Your task to perform on an android device: Search for usb-c on ebay.com, select the first entry, add it to the cart, then select checkout. Image 0: 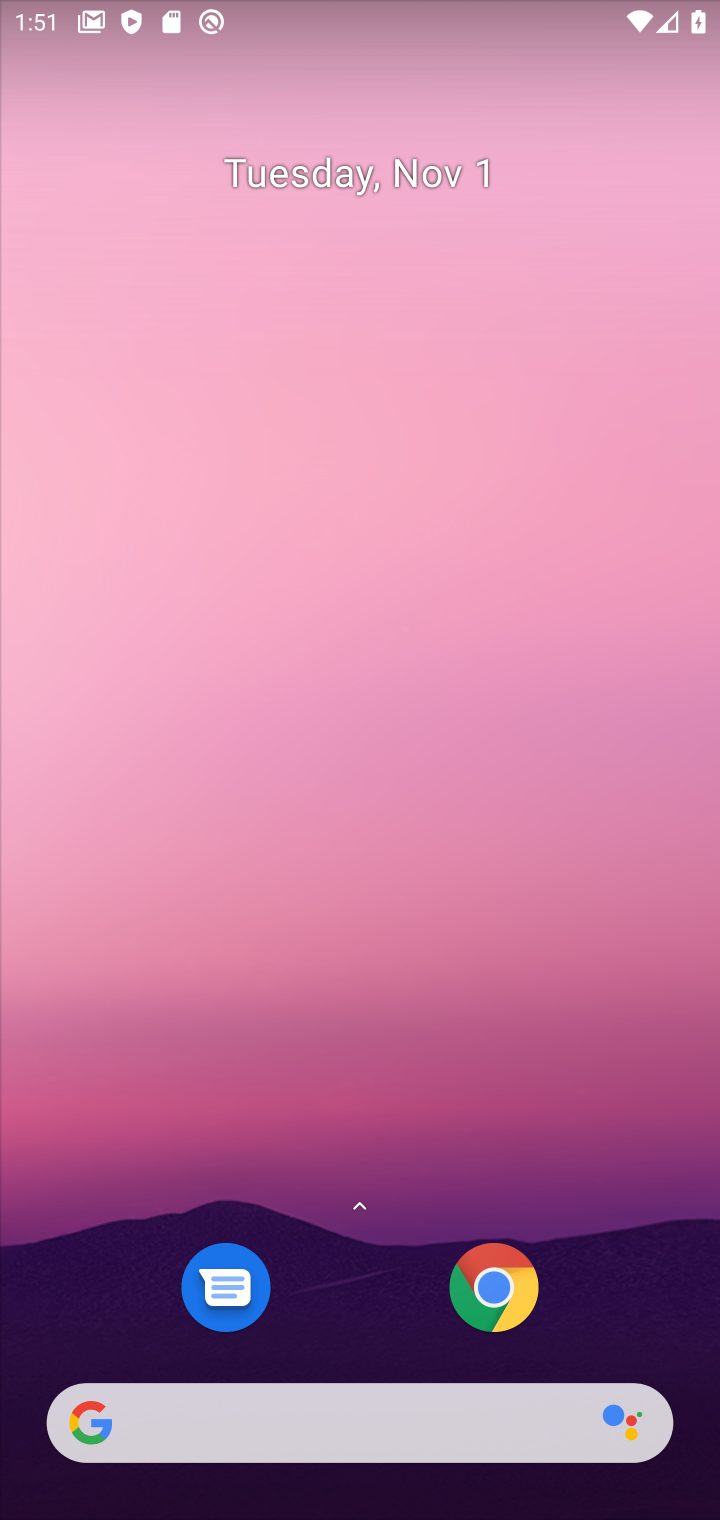
Step 0: drag from (333, 1249) to (336, 301)
Your task to perform on an android device: Search for usb-c on ebay.com, select the first entry, add it to the cart, then select checkout. Image 1: 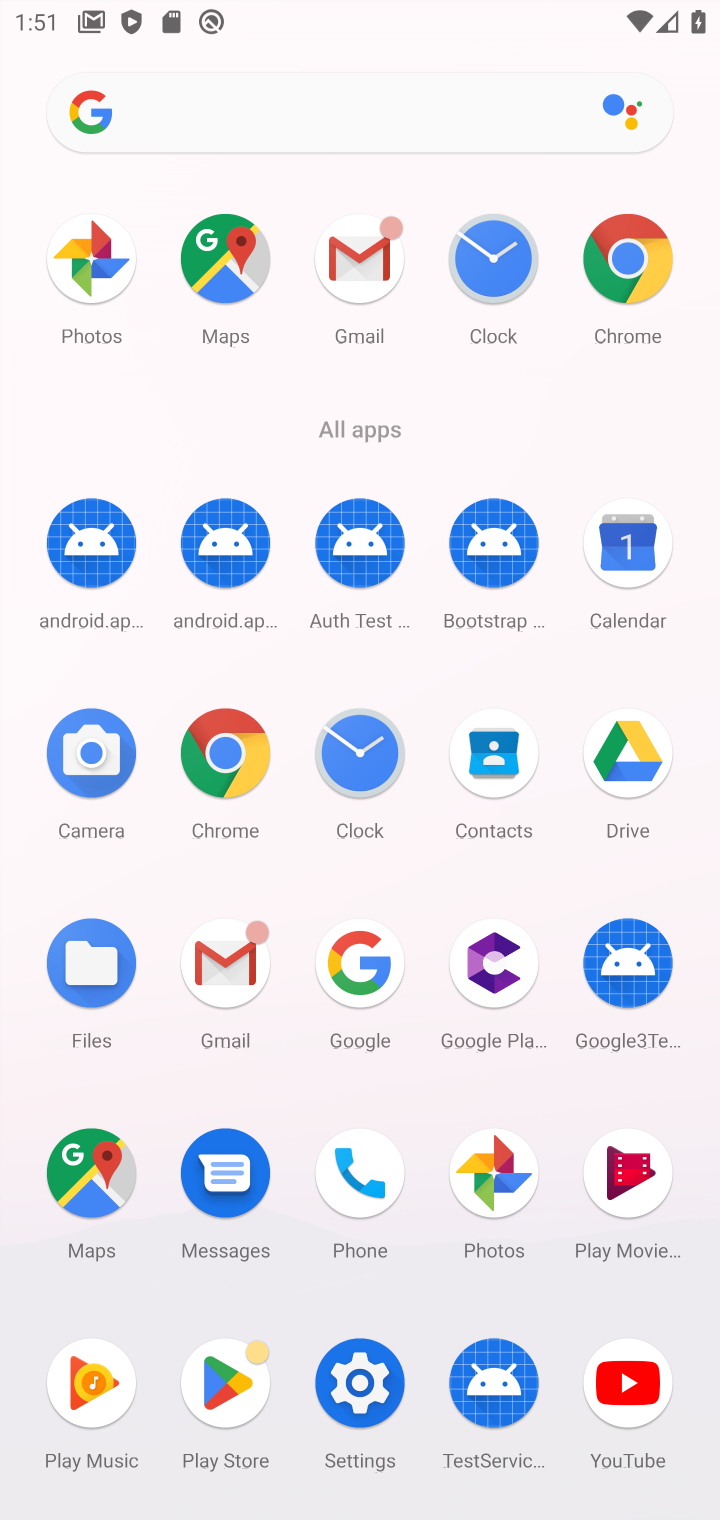
Step 1: click (232, 762)
Your task to perform on an android device: Search for usb-c on ebay.com, select the first entry, add it to the cart, then select checkout. Image 2: 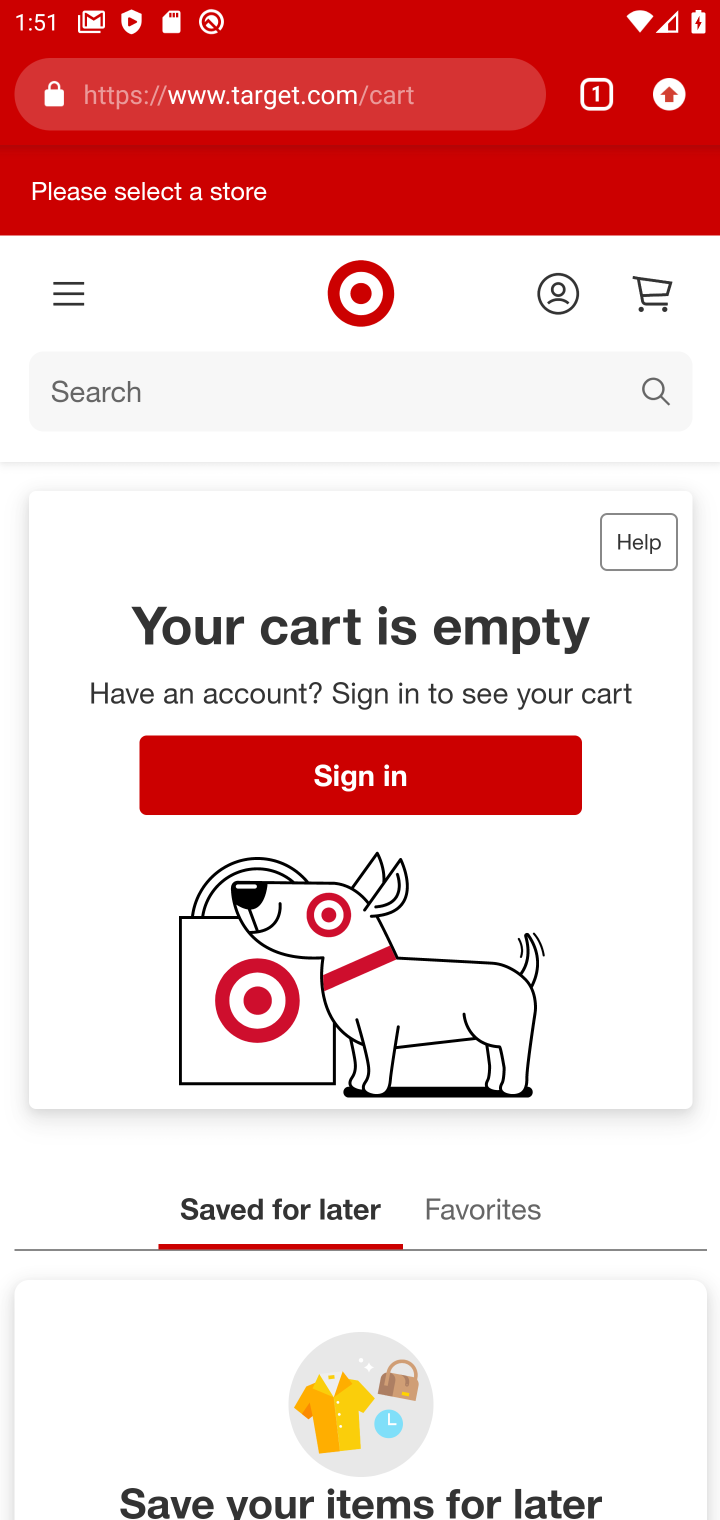
Step 2: click (394, 102)
Your task to perform on an android device: Search for usb-c on ebay.com, select the first entry, add it to the cart, then select checkout. Image 3: 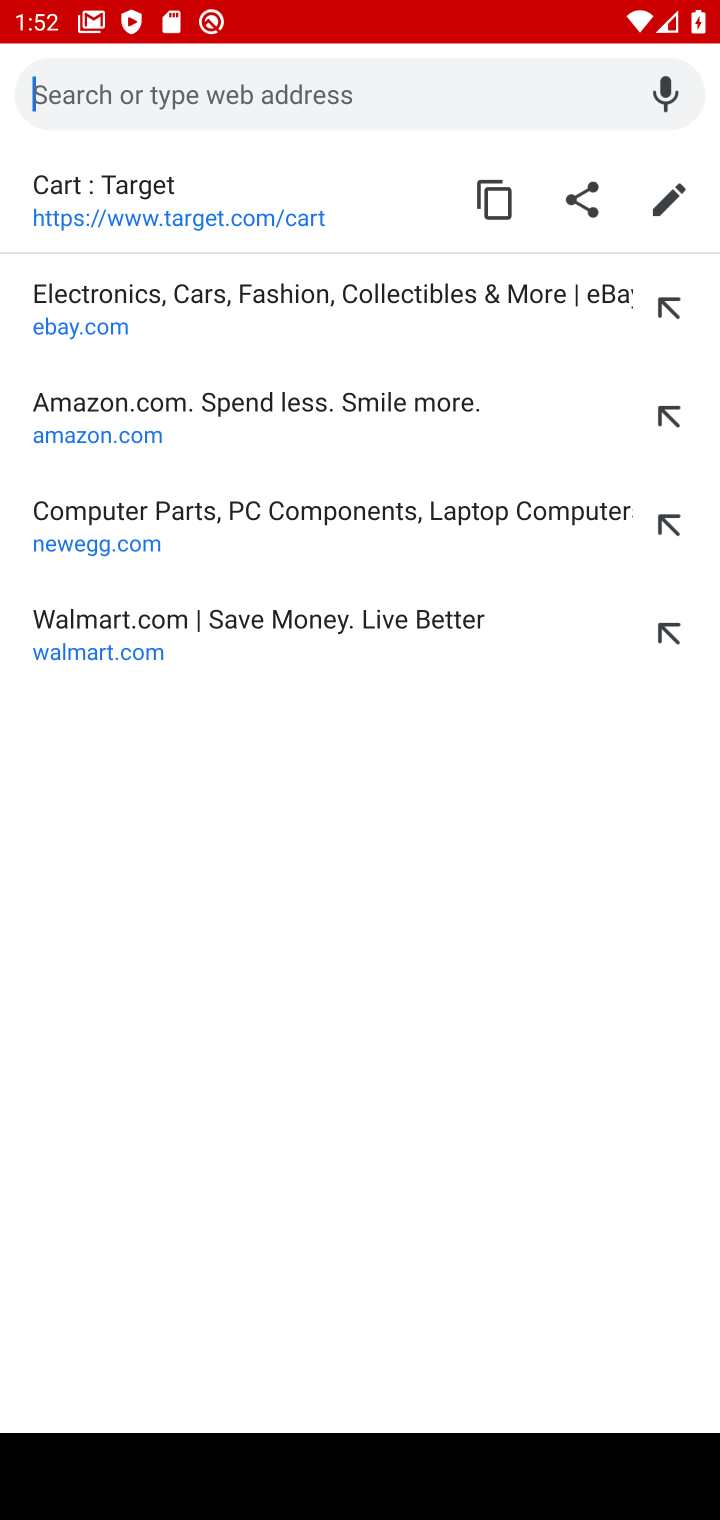
Step 3: type "ebay.com"
Your task to perform on an android device: Search for usb-c on ebay.com, select the first entry, add it to the cart, then select checkout. Image 4: 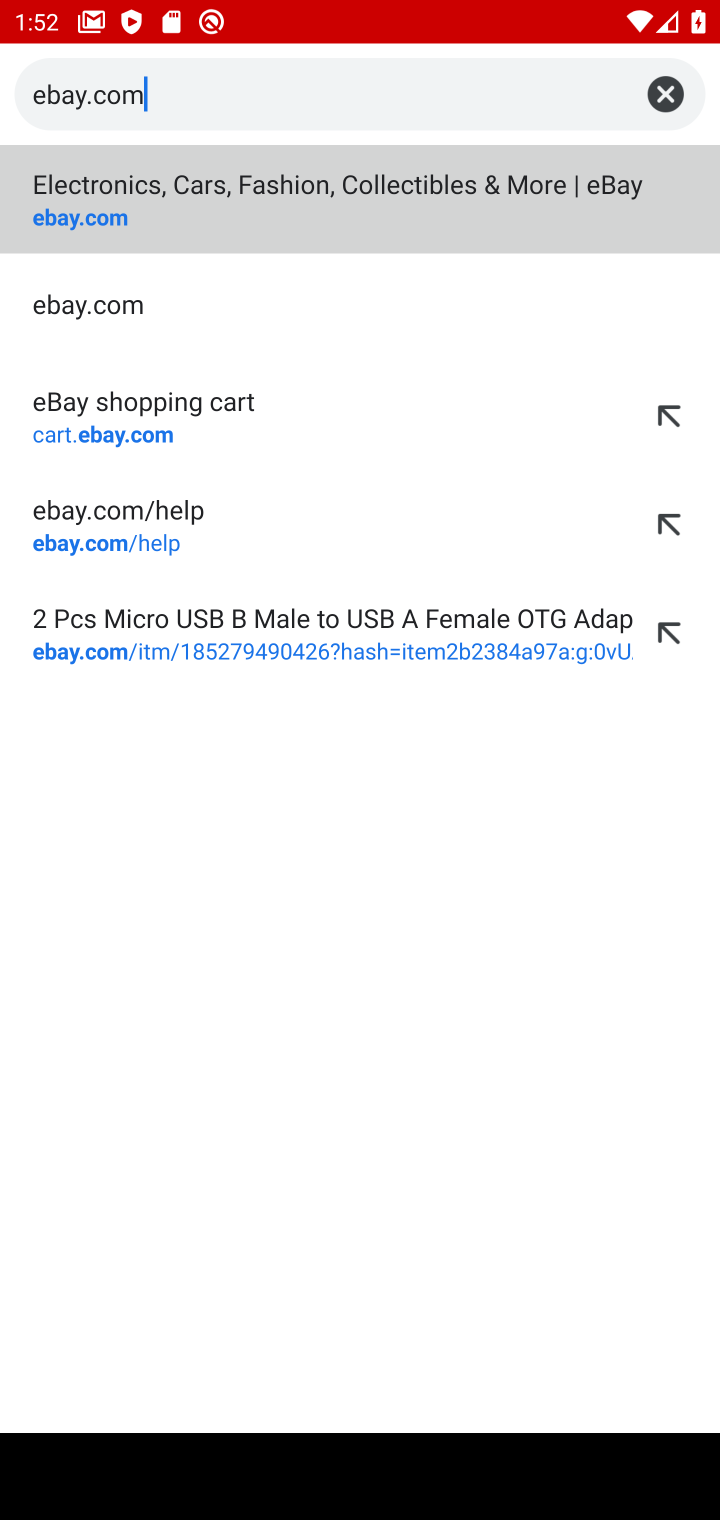
Step 4: press enter
Your task to perform on an android device: Search for usb-c on ebay.com, select the first entry, add it to the cart, then select checkout. Image 5: 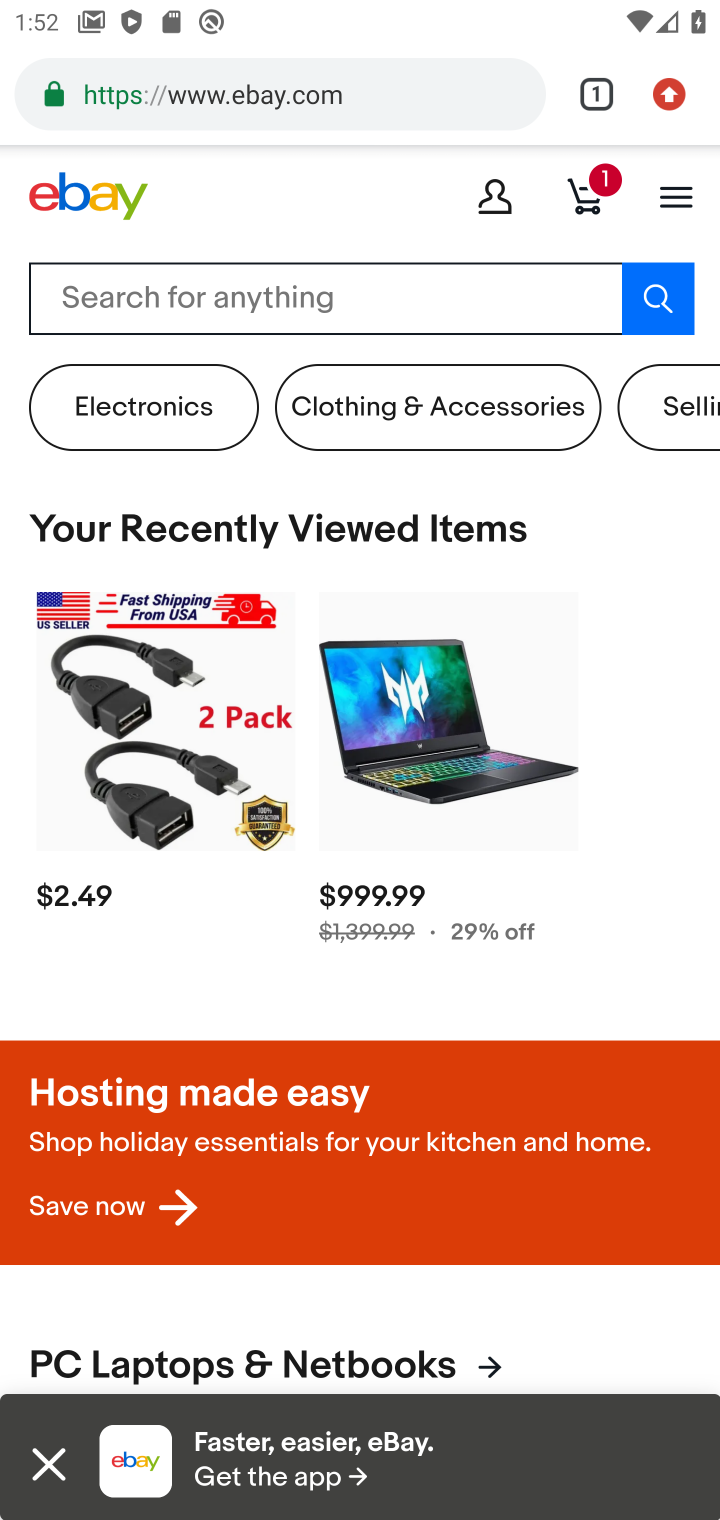
Step 5: click (236, 305)
Your task to perform on an android device: Search for usb-c on ebay.com, select the first entry, add it to the cart, then select checkout. Image 6: 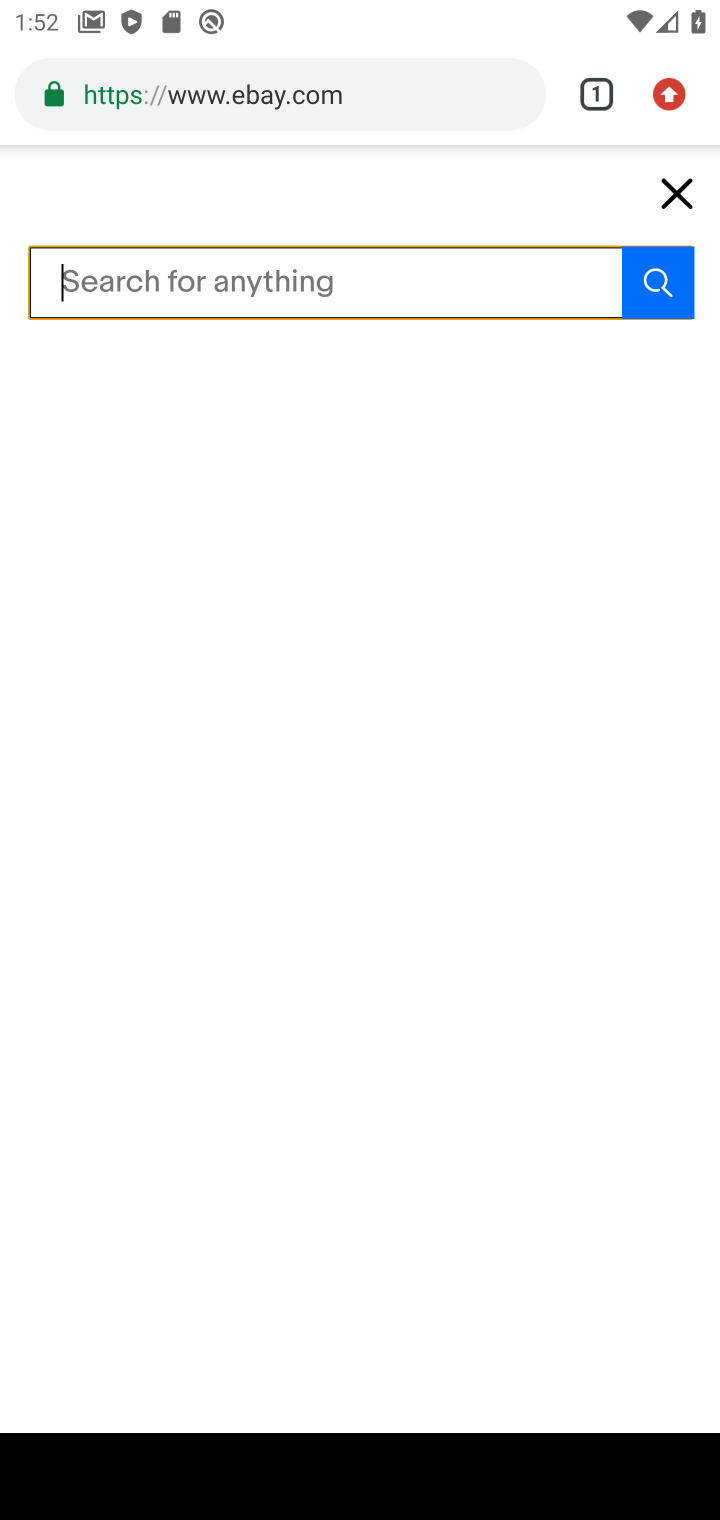
Step 6: type "usb-c"
Your task to perform on an android device: Search for usb-c on ebay.com, select the first entry, add it to the cart, then select checkout. Image 7: 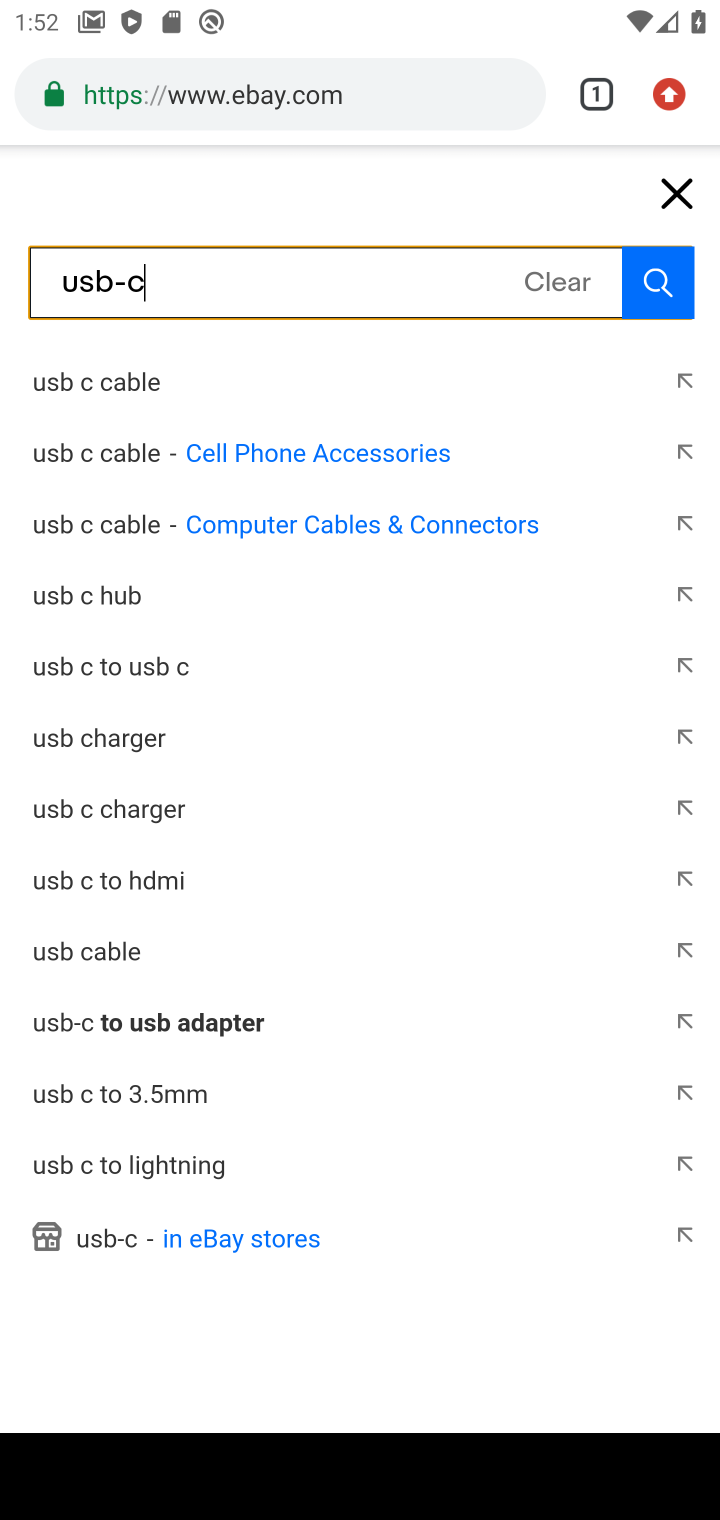
Step 7: press enter
Your task to perform on an android device: Search for usb-c on ebay.com, select the first entry, add it to the cart, then select checkout. Image 8: 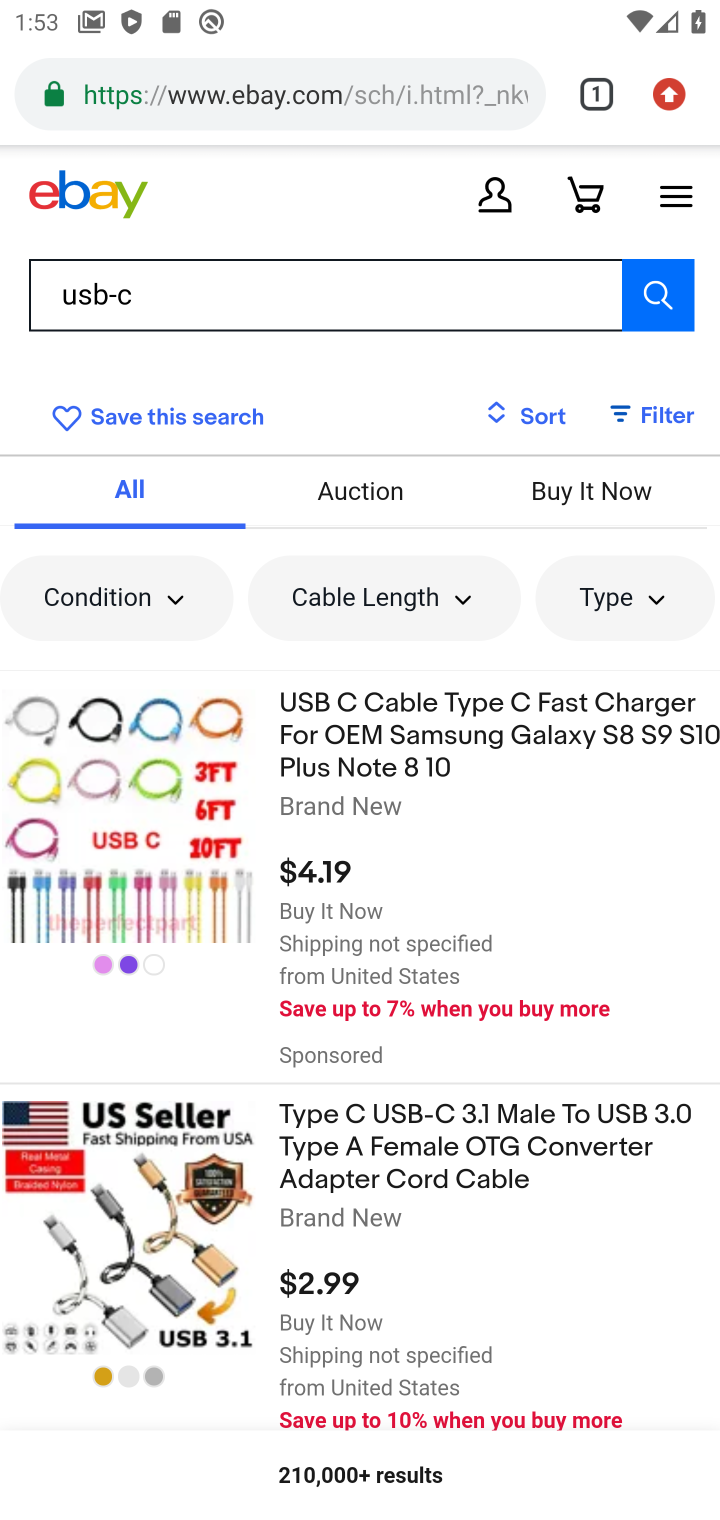
Step 8: click (312, 792)
Your task to perform on an android device: Search for usb-c on ebay.com, select the first entry, add it to the cart, then select checkout. Image 9: 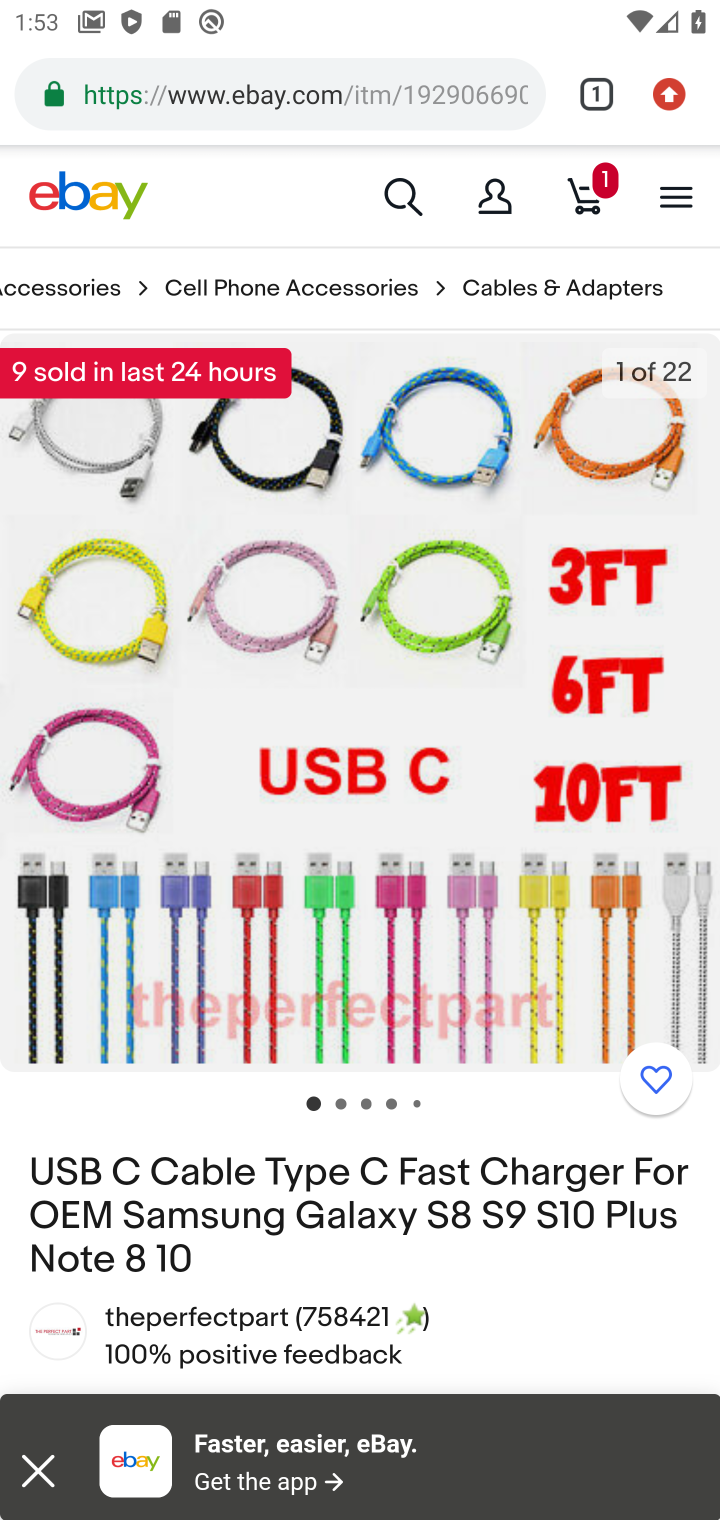
Step 9: drag from (511, 1093) to (460, 319)
Your task to perform on an android device: Search for usb-c on ebay.com, select the first entry, add it to the cart, then select checkout. Image 10: 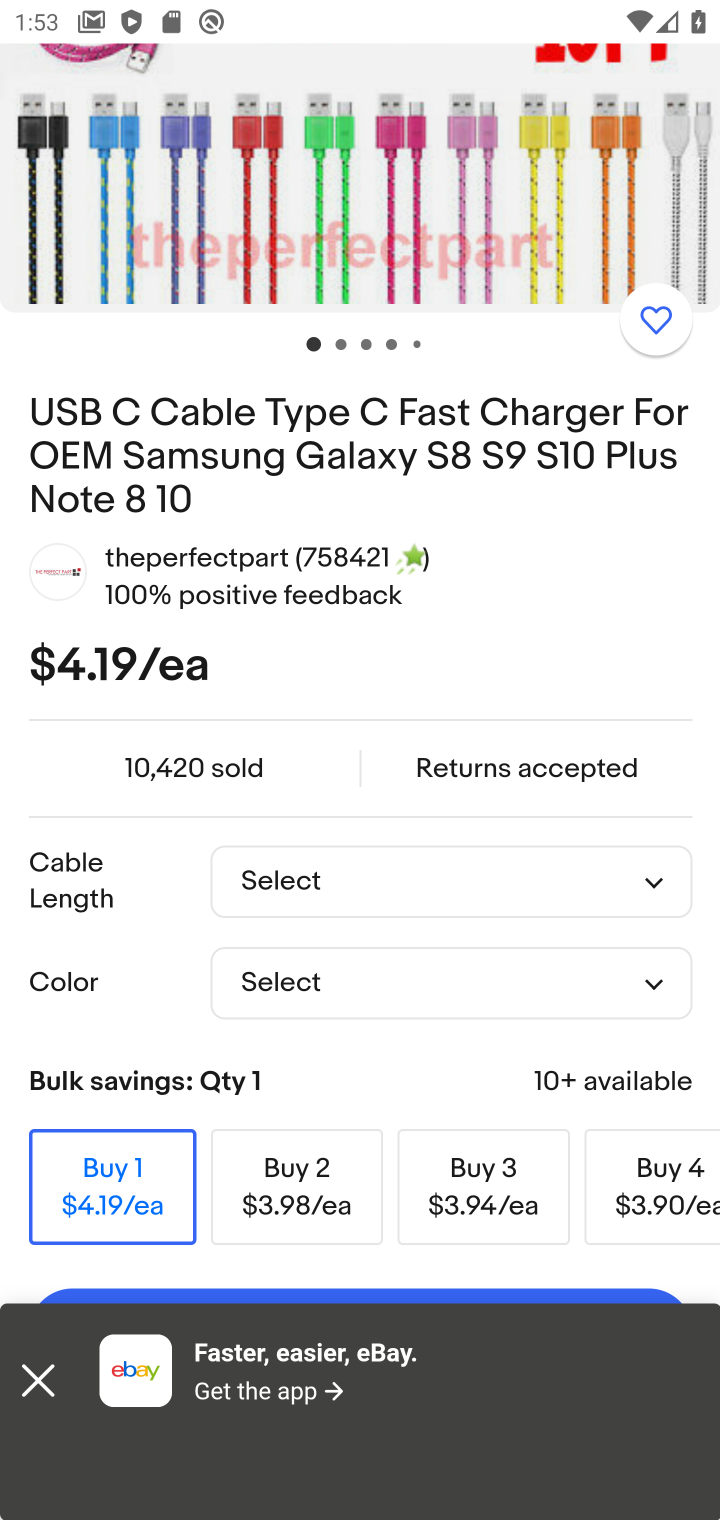
Step 10: drag from (473, 1056) to (441, 420)
Your task to perform on an android device: Search for usb-c on ebay.com, select the first entry, add it to the cart, then select checkout. Image 11: 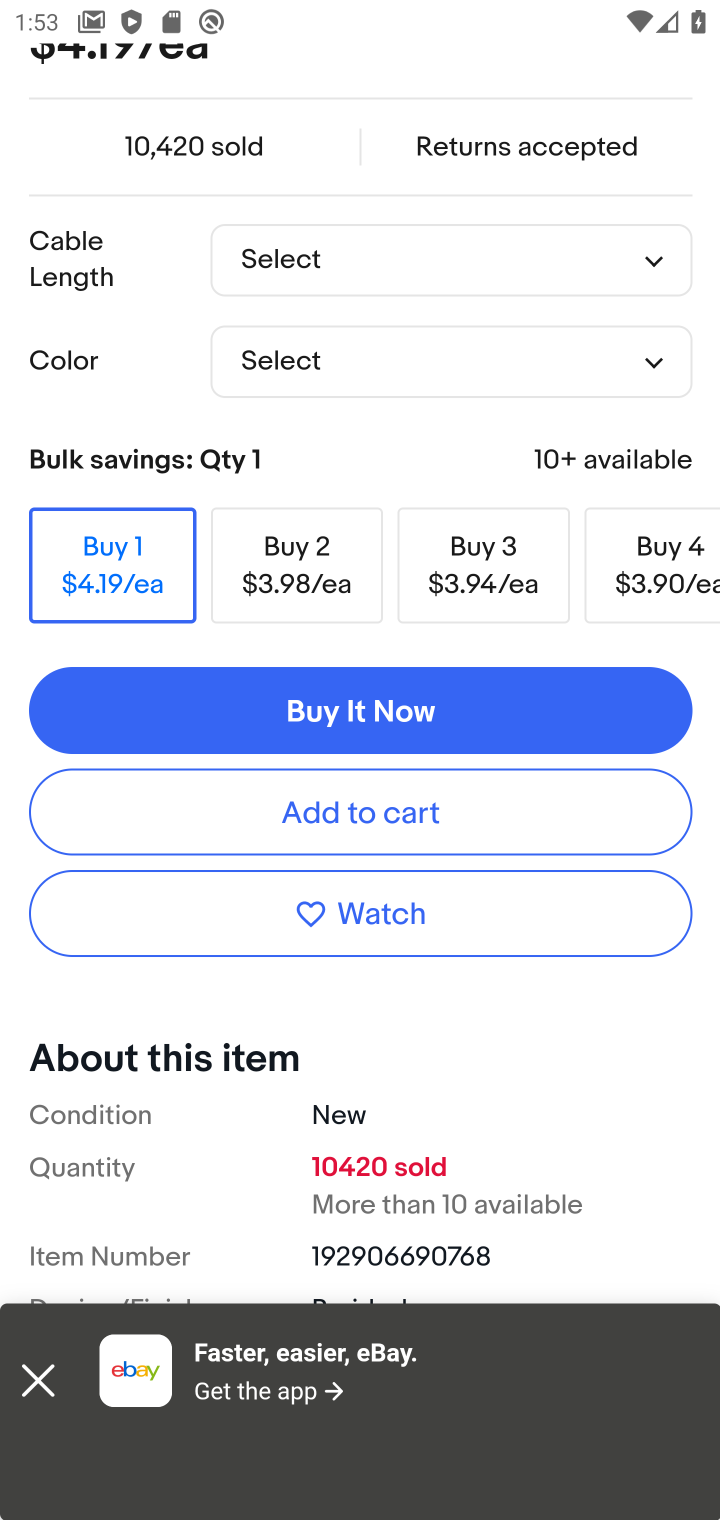
Step 11: click (411, 811)
Your task to perform on an android device: Search for usb-c on ebay.com, select the first entry, add it to the cart, then select checkout. Image 12: 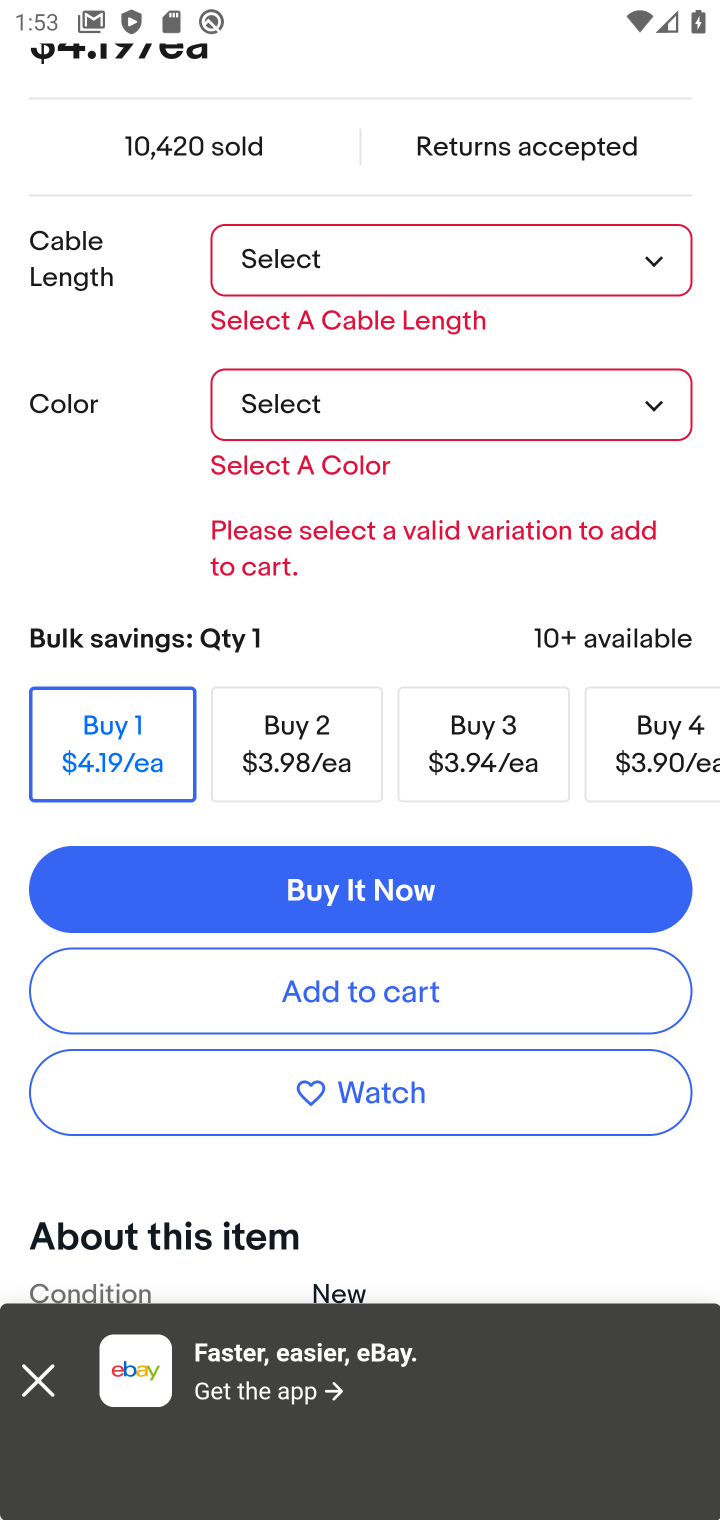
Step 12: click (562, 266)
Your task to perform on an android device: Search for usb-c on ebay.com, select the first entry, add it to the cart, then select checkout. Image 13: 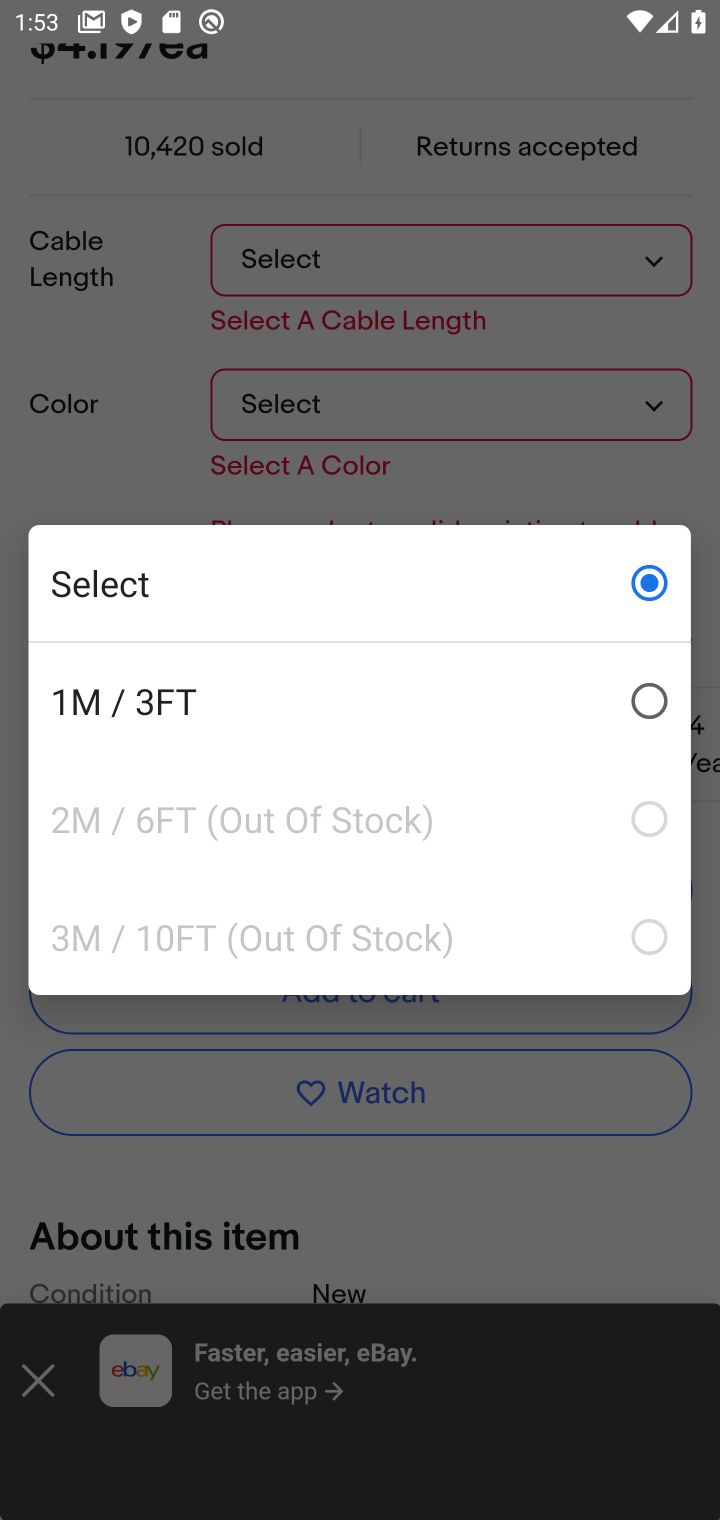
Step 13: click (660, 692)
Your task to perform on an android device: Search for usb-c on ebay.com, select the first entry, add it to the cart, then select checkout. Image 14: 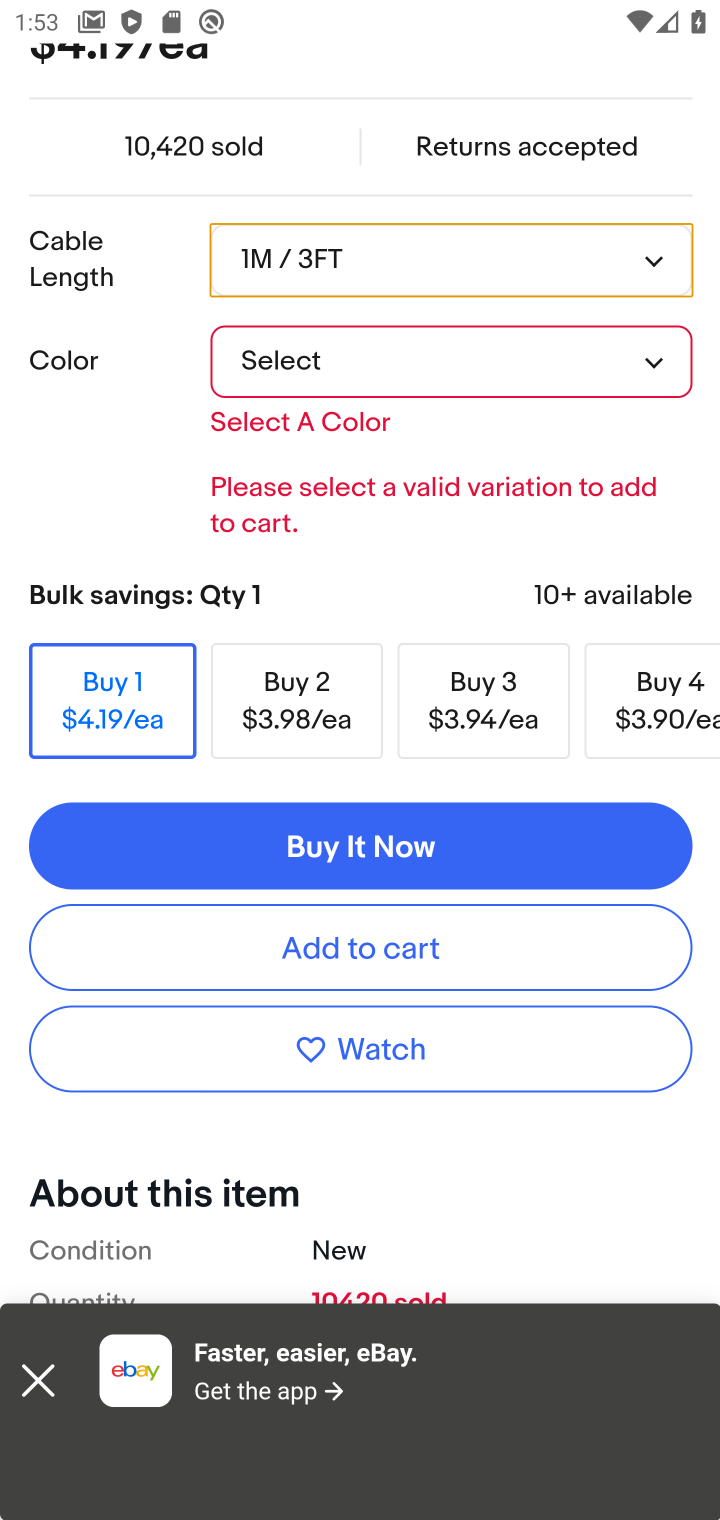
Step 14: click (458, 374)
Your task to perform on an android device: Search for usb-c on ebay.com, select the first entry, add it to the cart, then select checkout. Image 15: 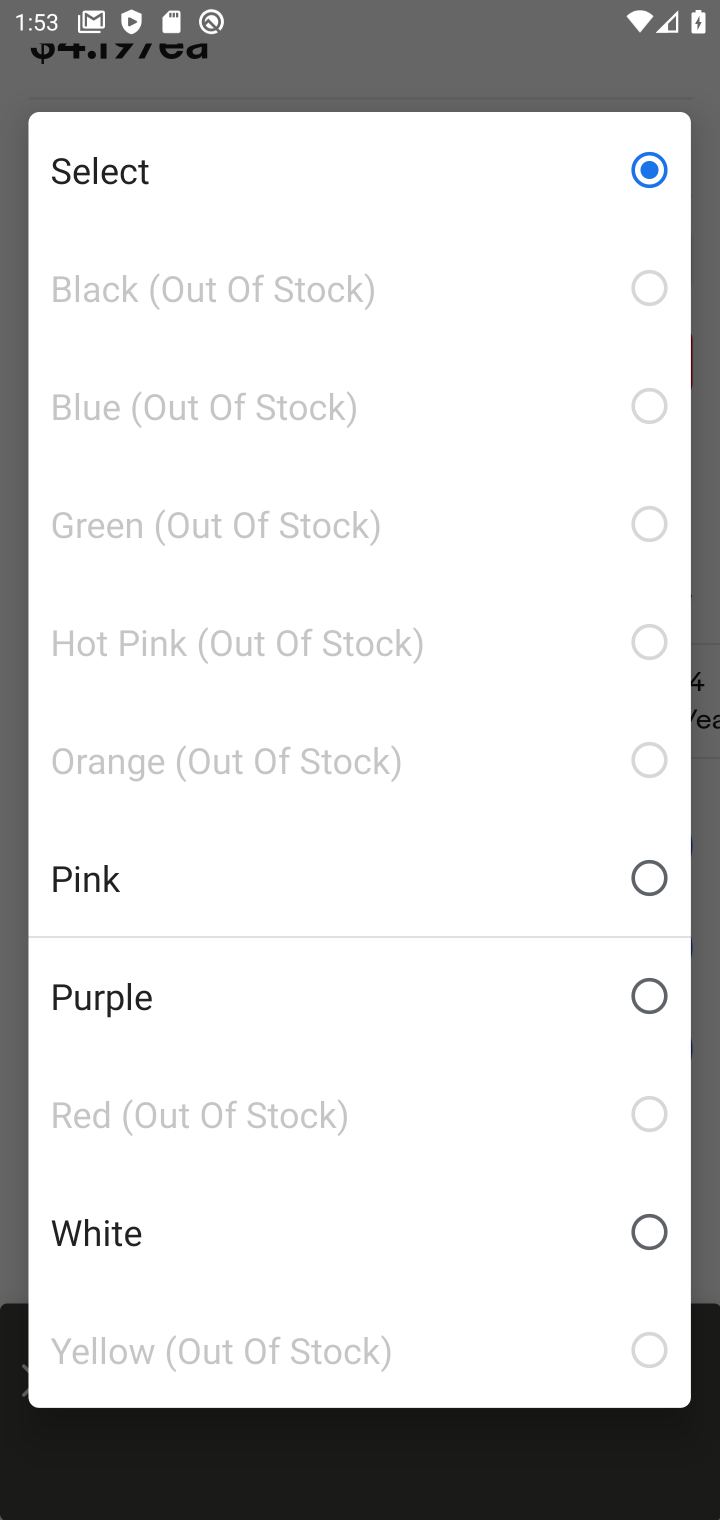
Step 15: click (649, 875)
Your task to perform on an android device: Search for usb-c on ebay.com, select the first entry, add it to the cart, then select checkout. Image 16: 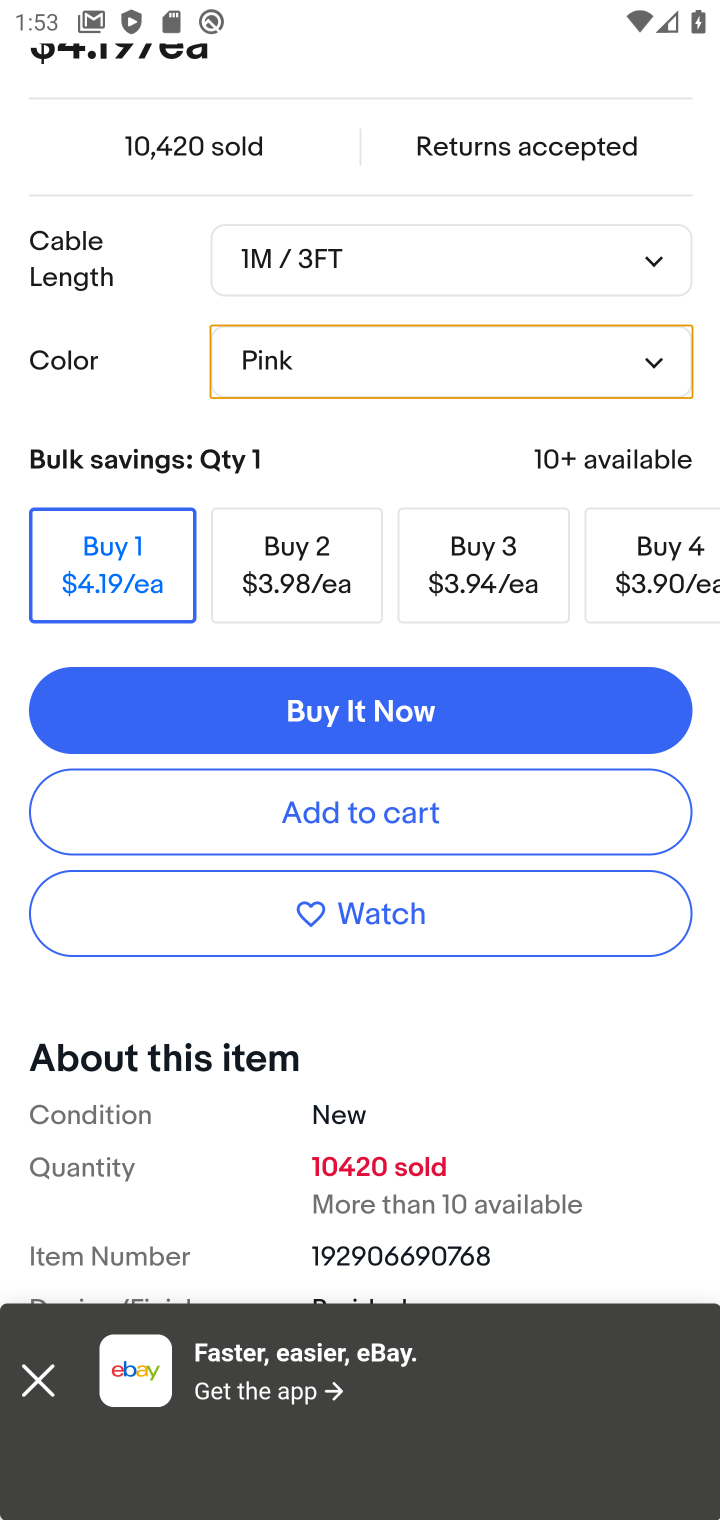
Step 16: click (520, 809)
Your task to perform on an android device: Search for usb-c on ebay.com, select the first entry, add it to the cart, then select checkout. Image 17: 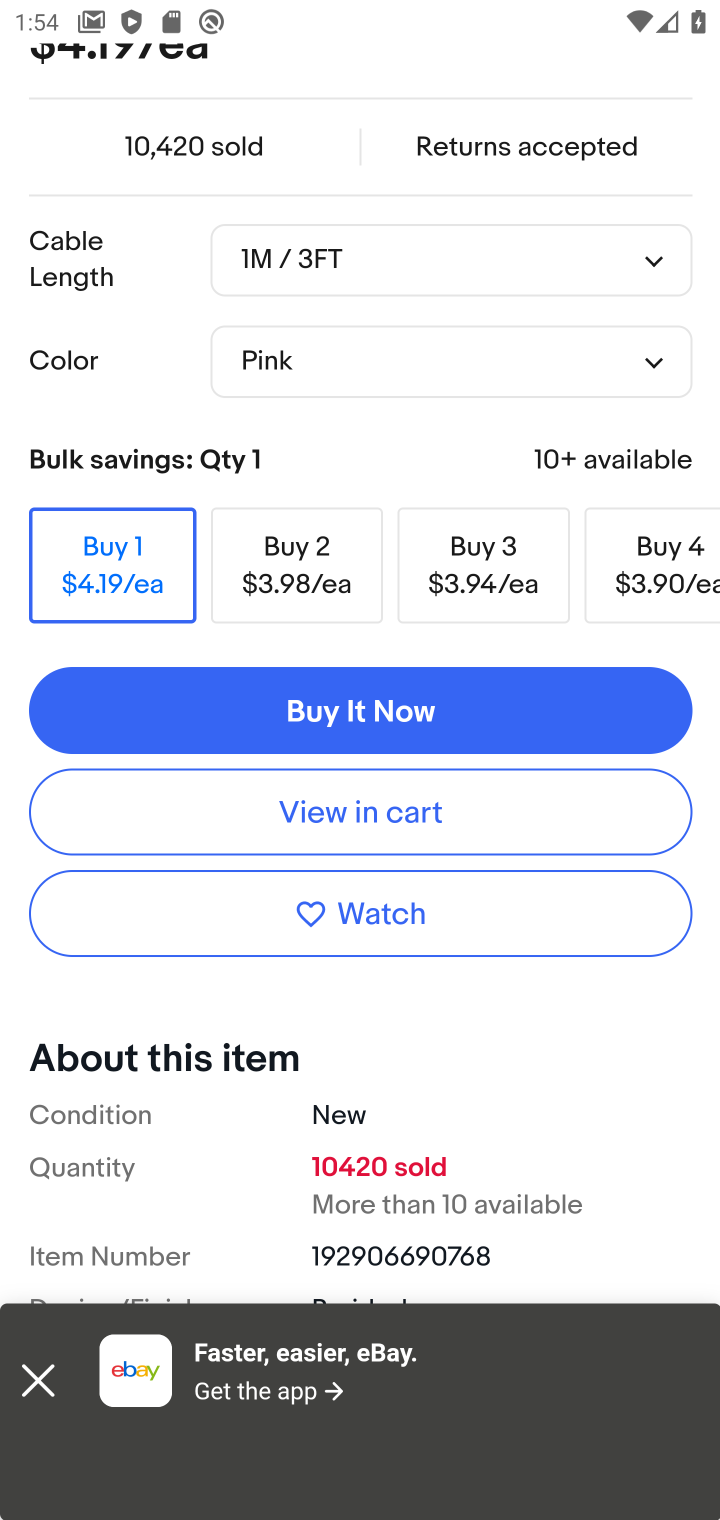
Step 17: click (471, 821)
Your task to perform on an android device: Search for usb-c on ebay.com, select the first entry, add it to the cart, then select checkout. Image 18: 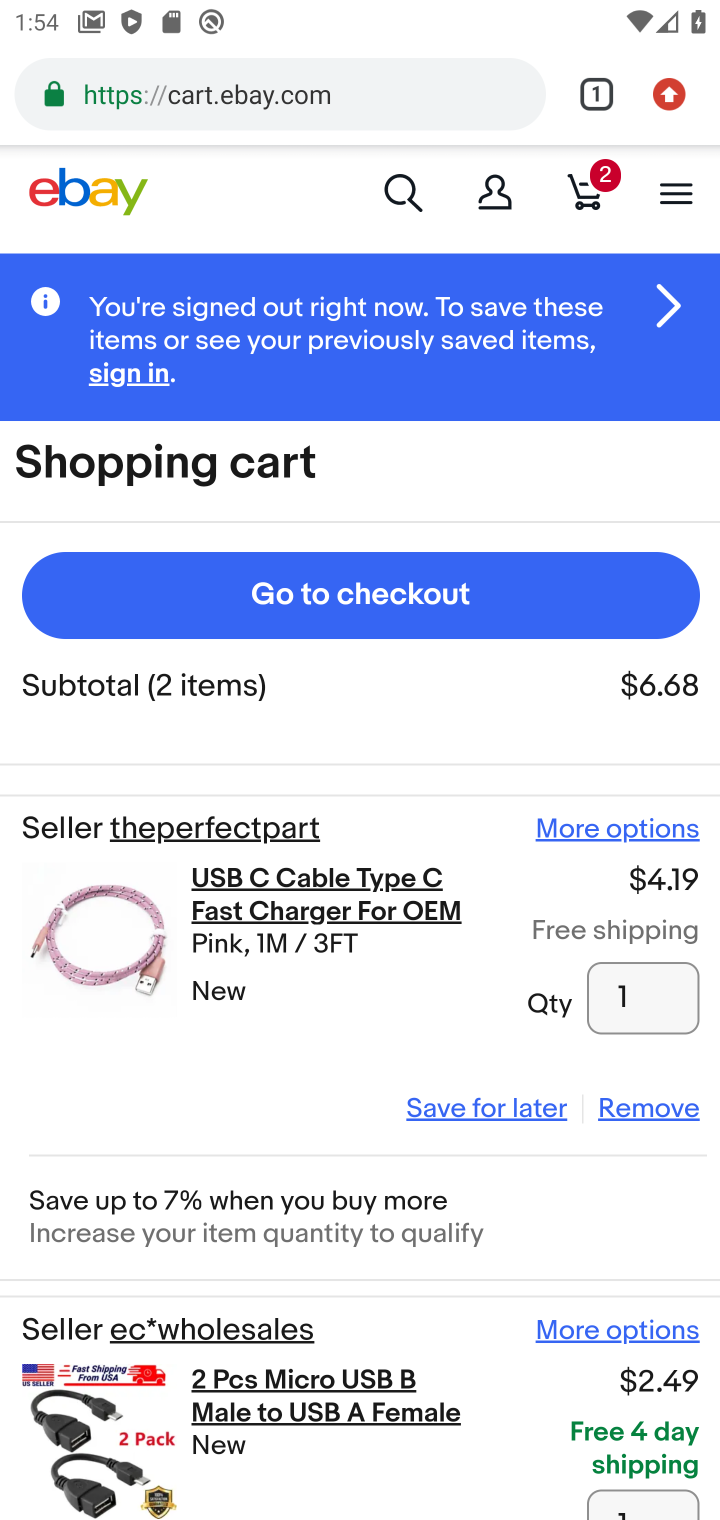
Step 18: click (432, 576)
Your task to perform on an android device: Search for usb-c on ebay.com, select the first entry, add it to the cart, then select checkout. Image 19: 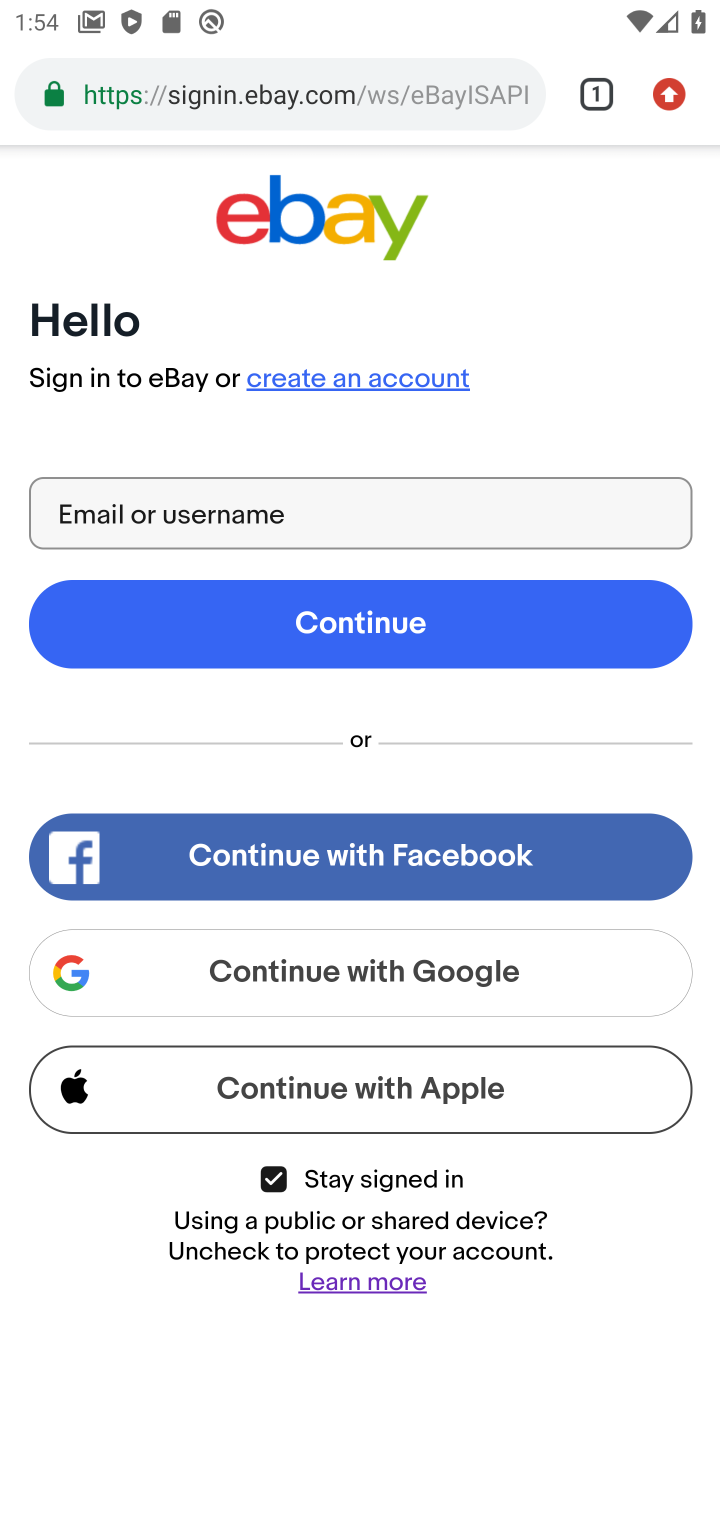
Step 19: task complete